Your task to perform on an android device: toggle wifi Image 0: 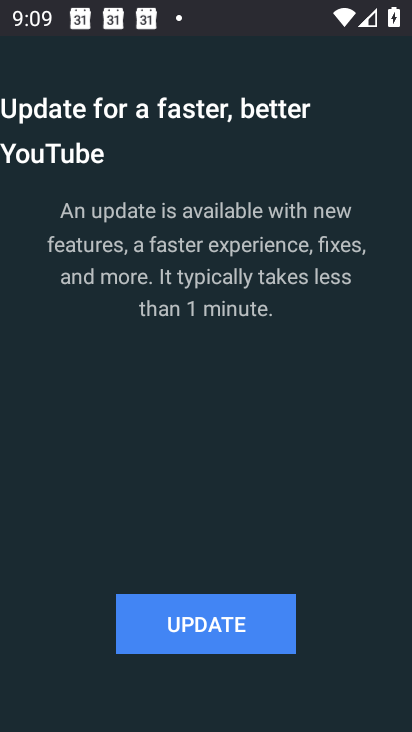
Step 0: press back button
Your task to perform on an android device: toggle wifi Image 1: 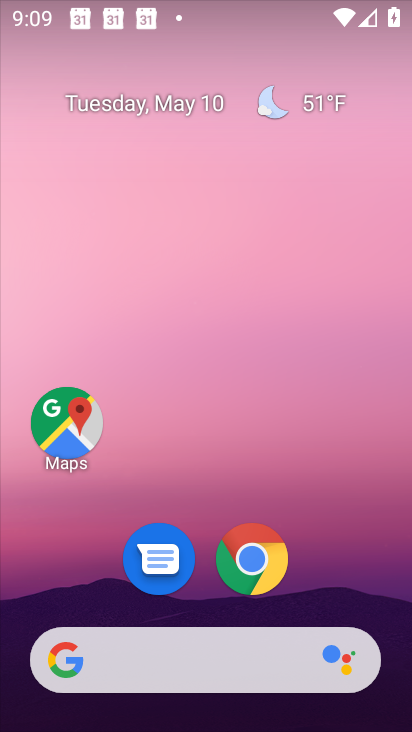
Step 1: drag from (322, 544) to (312, 138)
Your task to perform on an android device: toggle wifi Image 2: 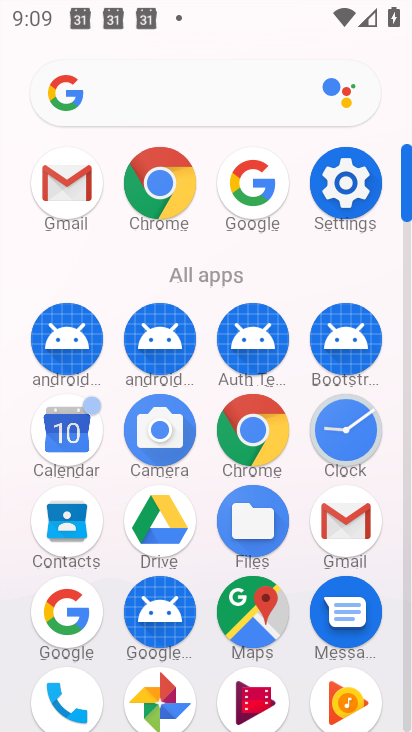
Step 2: click (347, 183)
Your task to perform on an android device: toggle wifi Image 3: 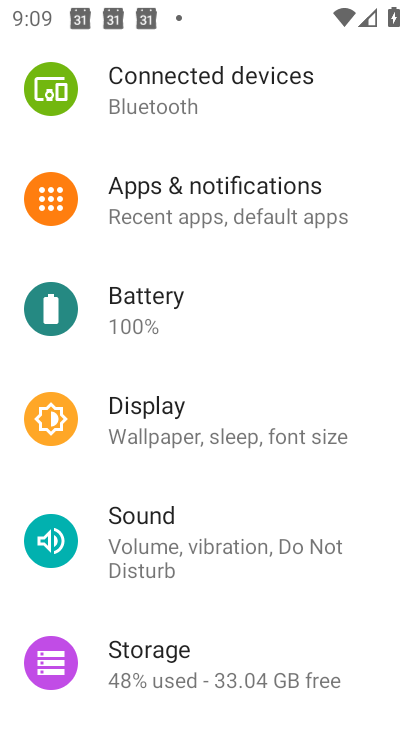
Step 3: drag from (215, 155) to (242, 351)
Your task to perform on an android device: toggle wifi Image 4: 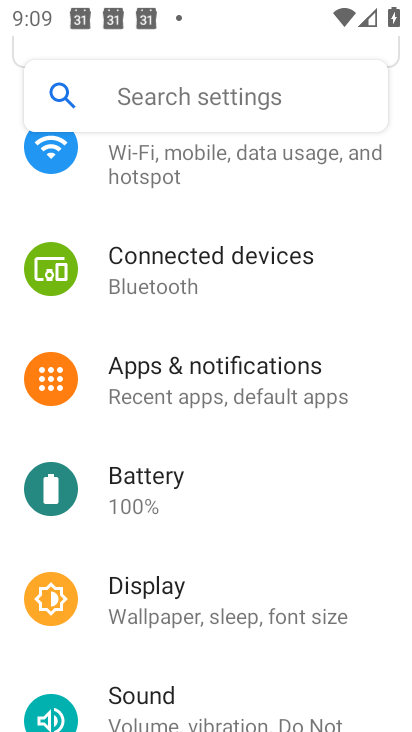
Step 4: drag from (187, 232) to (226, 385)
Your task to perform on an android device: toggle wifi Image 5: 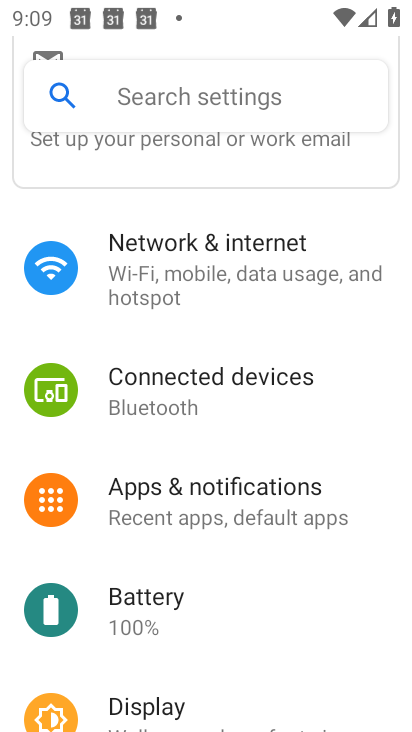
Step 5: click (177, 265)
Your task to perform on an android device: toggle wifi Image 6: 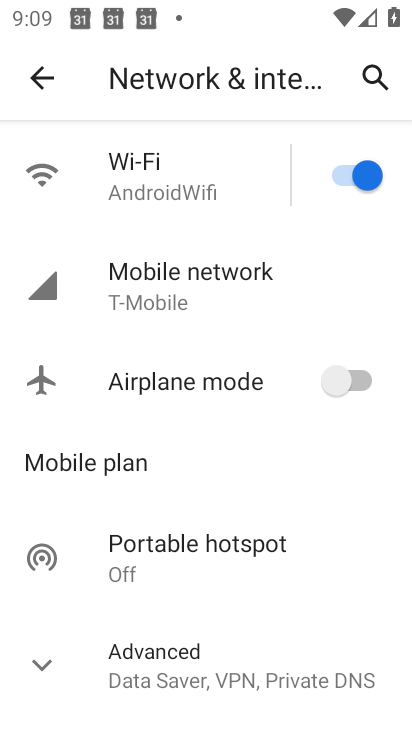
Step 6: click (369, 170)
Your task to perform on an android device: toggle wifi Image 7: 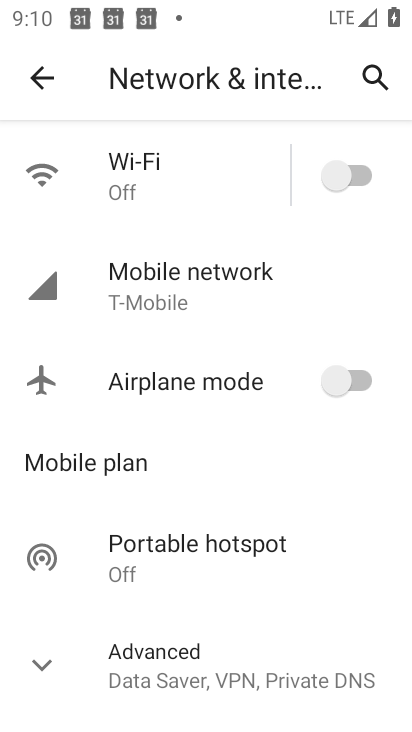
Step 7: task complete